Your task to perform on an android device: turn on showing notifications on the lock screen Image 0: 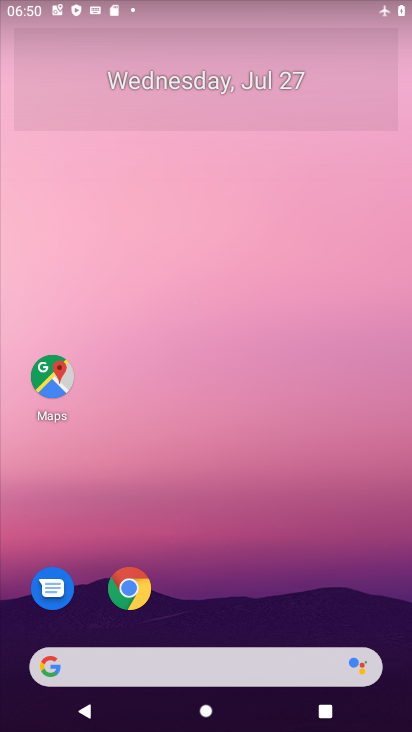
Step 0: drag from (297, 589) to (311, 8)
Your task to perform on an android device: turn on showing notifications on the lock screen Image 1: 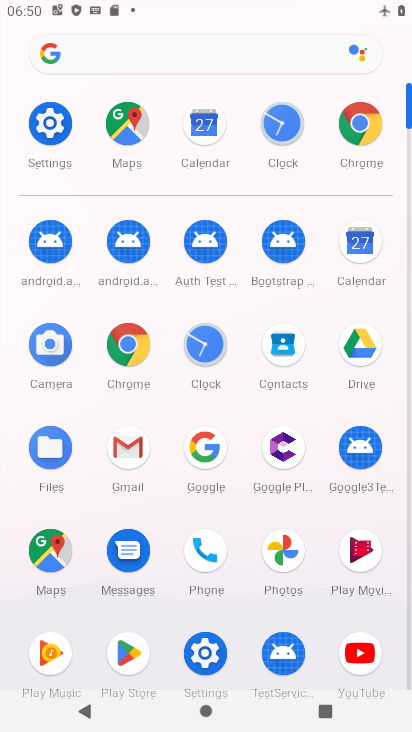
Step 1: click (60, 122)
Your task to perform on an android device: turn on showing notifications on the lock screen Image 2: 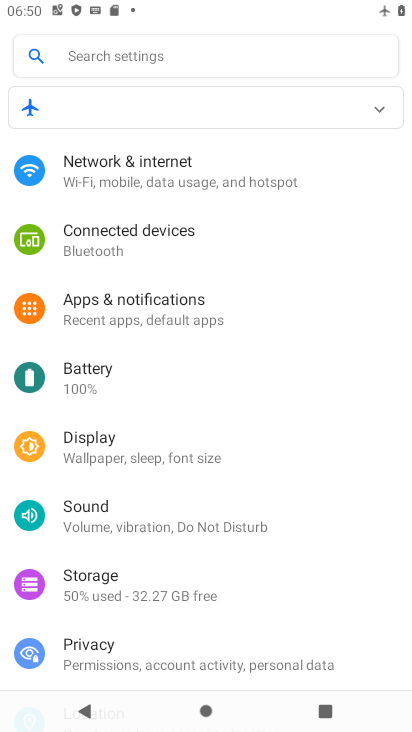
Step 2: click (139, 301)
Your task to perform on an android device: turn on showing notifications on the lock screen Image 3: 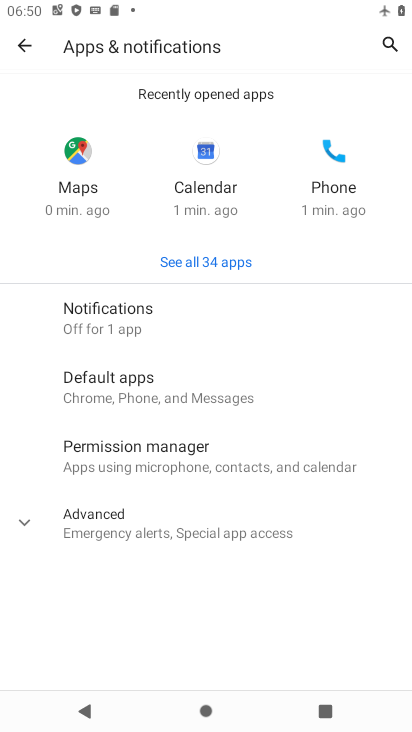
Step 3: click (136, 334)
Your task to perform on an android device: turn on showing notifications on the lock screen Image 4: 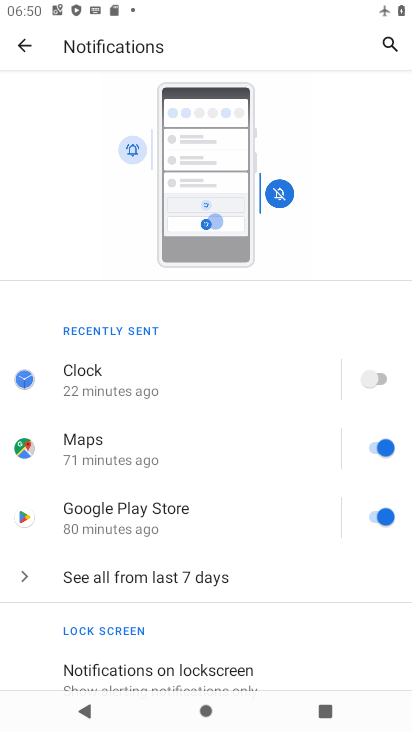
Step 4: drag from (191, 565) to (276, 158)
Your task to perform on an android device: turn on showing notifications on the lock screen Image 5: 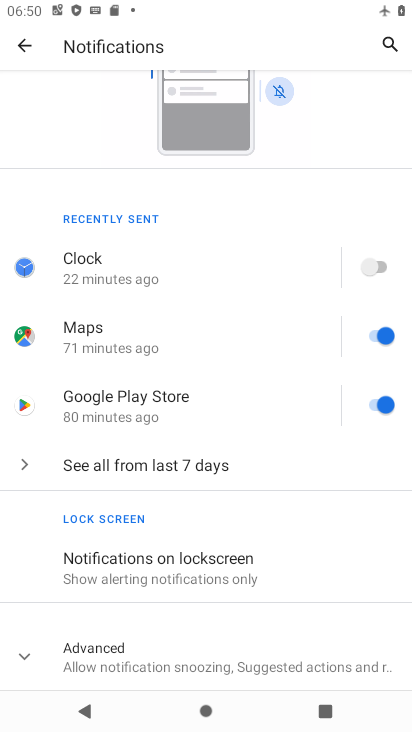
Step 5: click (196, 567)
Your task to perform on an android device: turn on showing notifications on the lock screen Image 6: 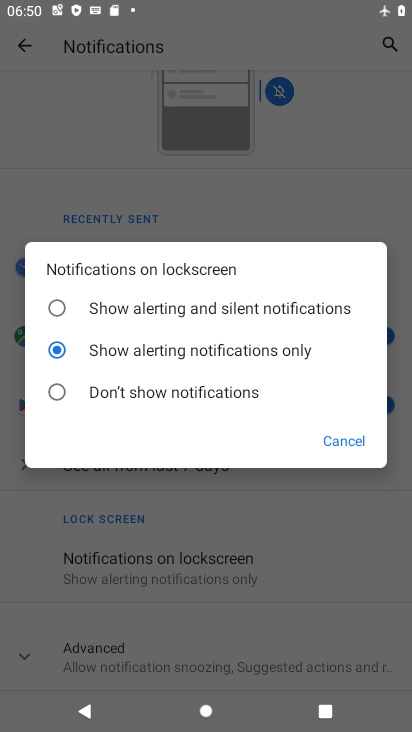
Step 6: click (57, 300)
Your task to perform on an android device: turn on showing notifications on the lock screen Image 7: 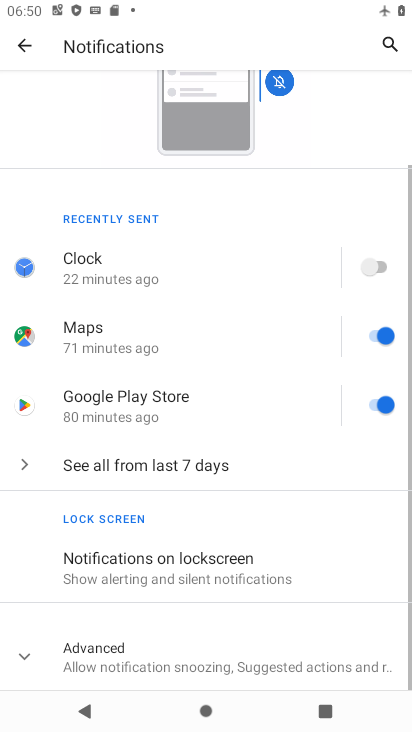
Step 7: task complete